Your task to perform on an android device: Show me the alarms in the clock app Image 0: 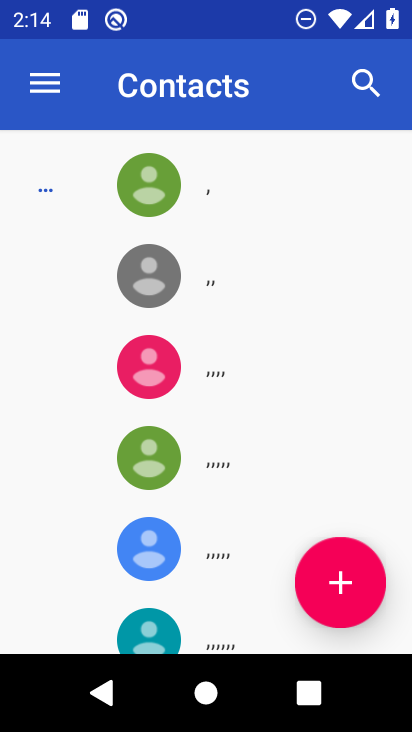
Step 0: press home button
Your task to perform on an android device: Show me the alarms in the clock app Image 1: 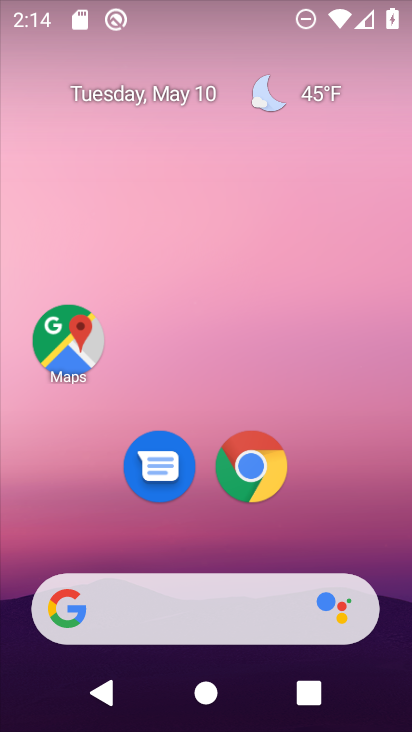
Step 1: drag from (296, 547) to (303, 34)
Your task to perform on an android device: Show me the alarms in the clock app Image 2: 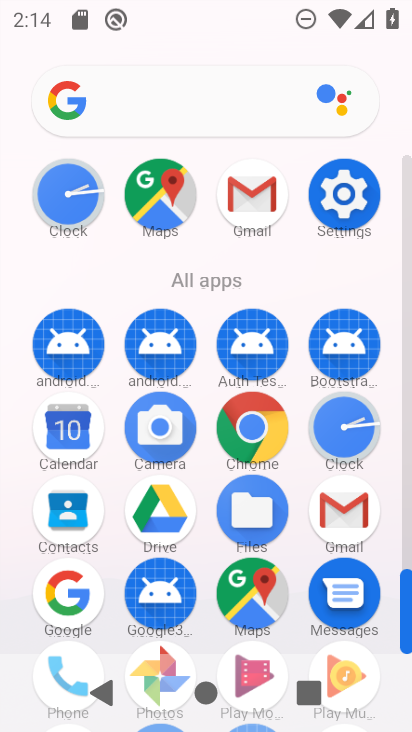
Step 2: click (337, 434)
Your task to perform on an android device: Show me the alarms in the clock app Image 3: 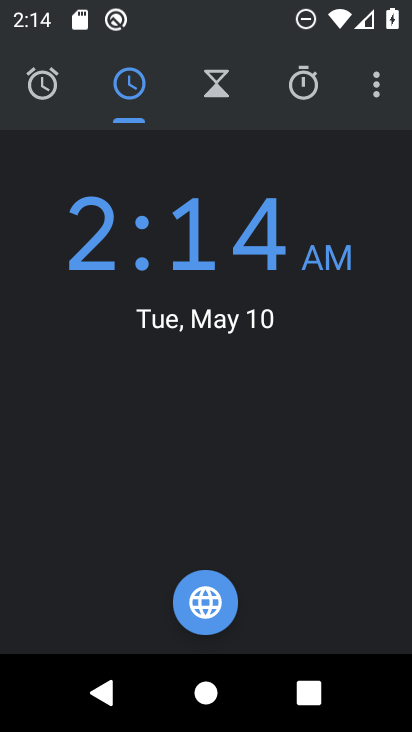
Step 3: click (363, 90)
Your task to perform on an android device: Show me the alarms in the clock app Image 4: 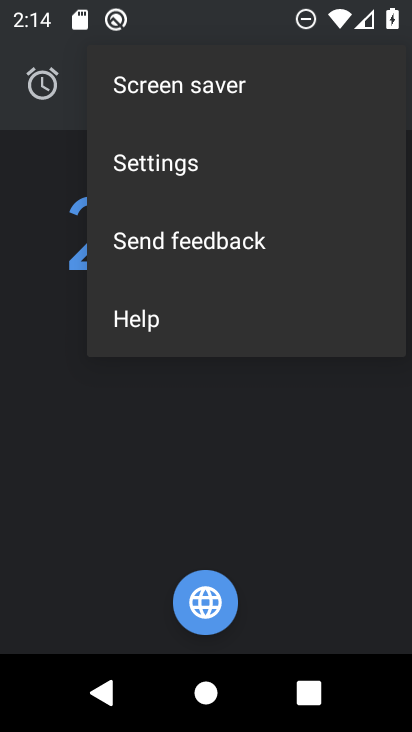
Step 4: click (63, 91)
Your task to perform on an android device: Show me the alarms in the clock app Image 5: 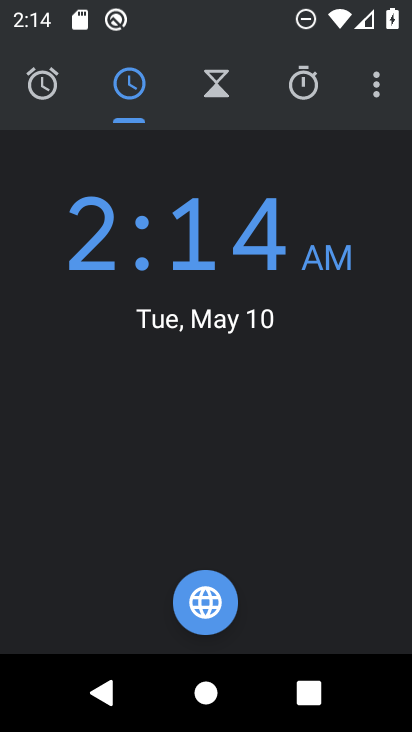
Step 5: click (65, 92)
Your task to perform on an android device: Show me the alarms in the clock app Image 6: 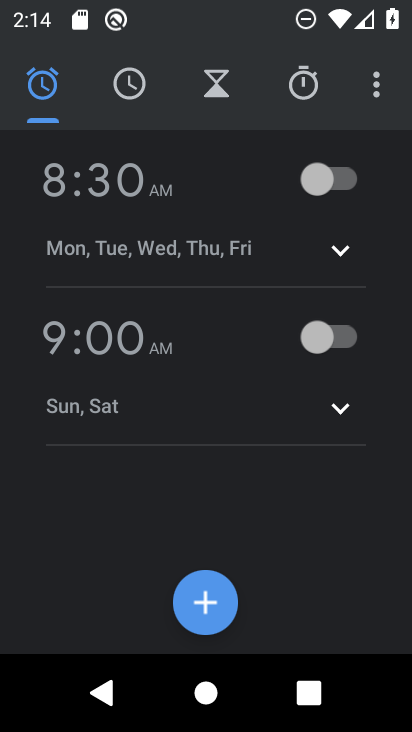
Step 6: task complete